Your task to perform on an android device: Open settings on Google Maps Image 0: 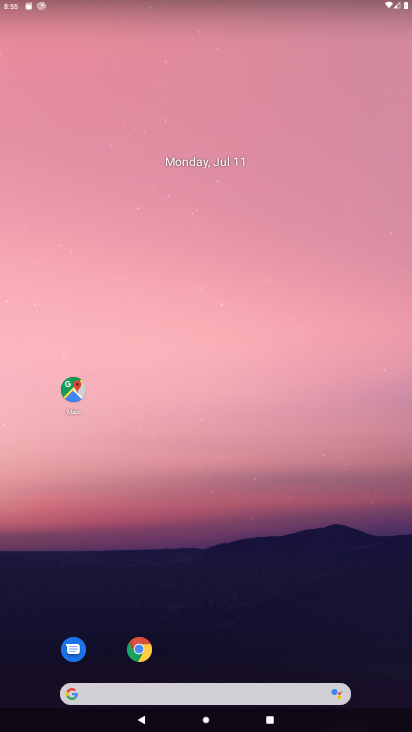
Step 0: drag from (214, 672) to (248, 93)
Your task to perform on an android device: Open settings on Google Maps Image 1: 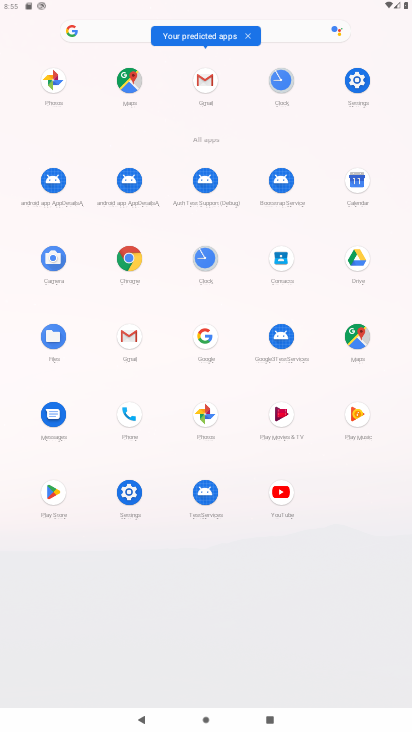
Step 1: click (358, 342)
Your task to perform on an android device: Open settings on Google Maps Image 2: 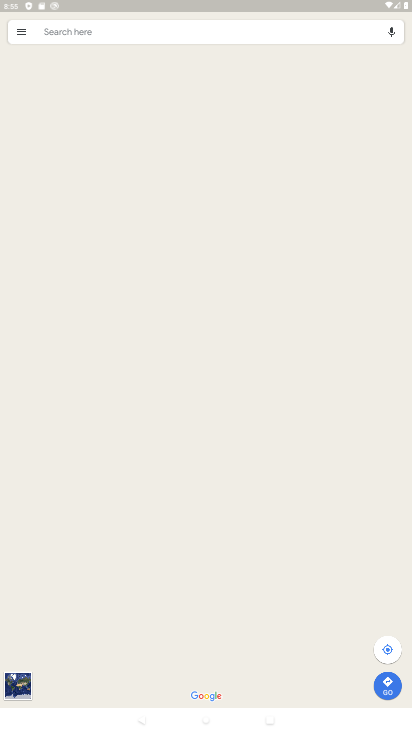
Step 2: click (23, 33)
Your task to perform on an android device: Open settings on Google Maps Image 3: 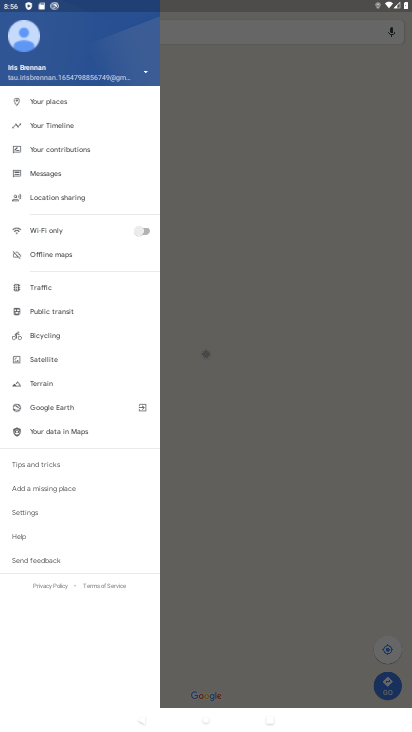
Step 3: click (59, 512)
Your task to perform on an android device: Open settings on Google Maps Image 4: 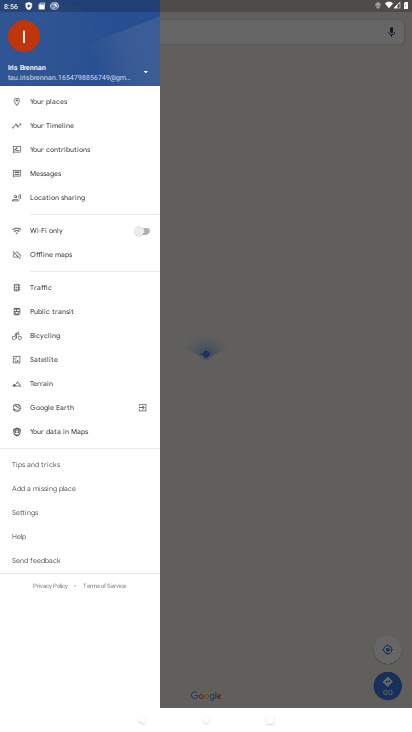
Step 4: click (57, 511)
Your task to perform on an android device: Open settings on Google Maps Image 5: 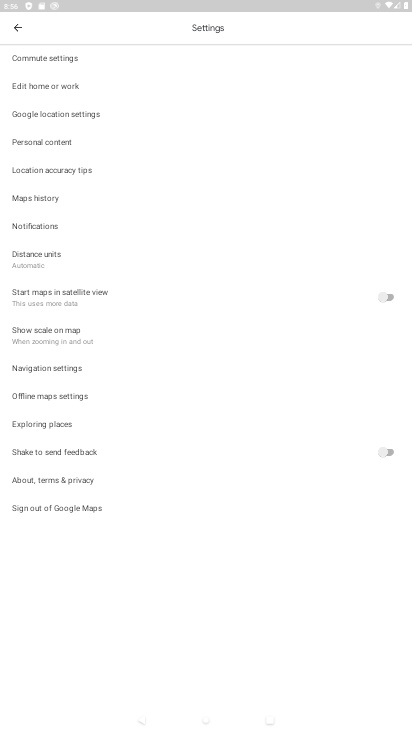
Step 5: task complete